Your task to perform on an android device: Show the shopping cart on costco. Add "jbl flip 4" to the cart on costco Image 0: 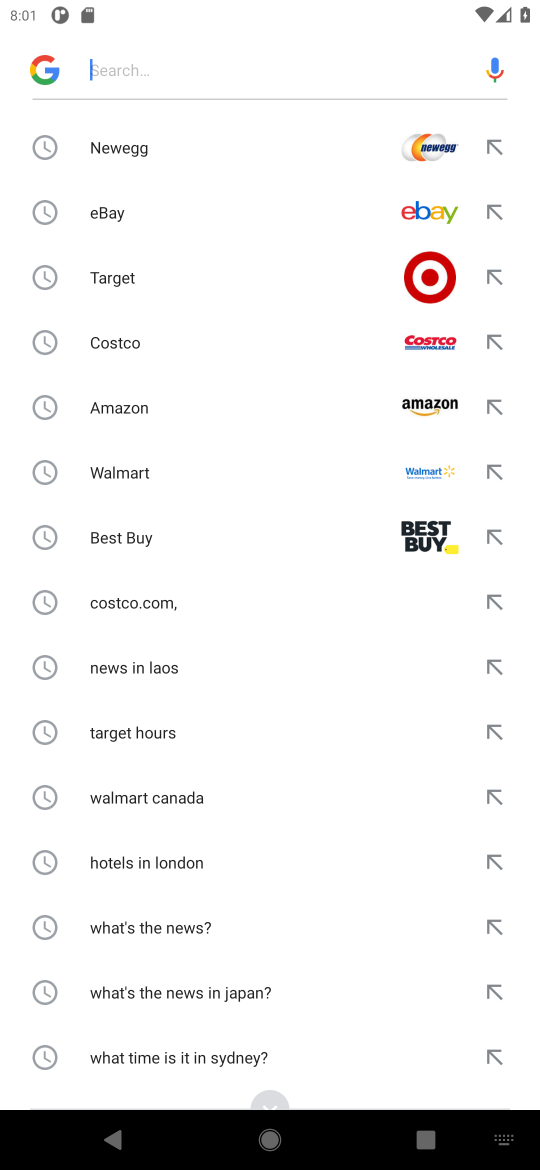
Step 0: type "costco.com"
Your task to perform on an android device: Show the shopping cart on costco. Add "jbl flip 4" to the cart on costco Image 1: 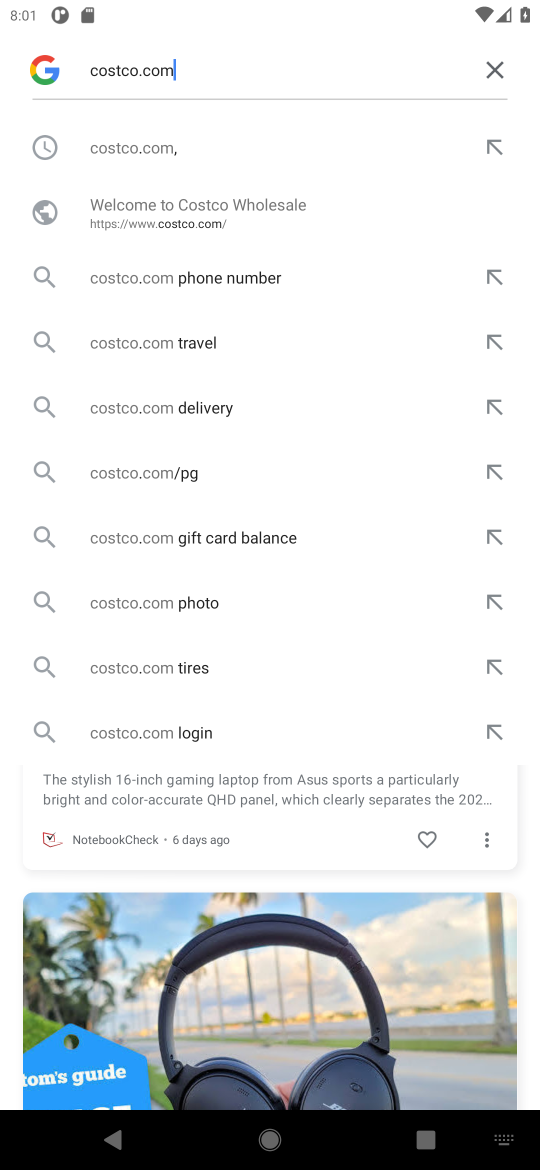
Step 1: click (141, 221)
Your task to perform on an android device: Show the shopping cart on costco. Add "jbl flip 4" to the cart on costco Image 2: 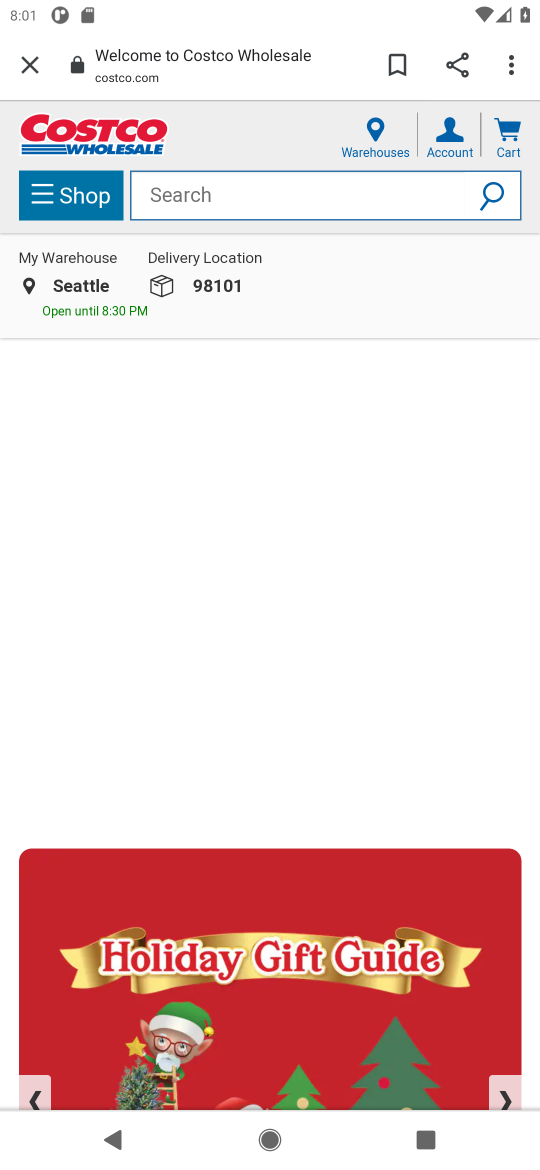
Step 2: click (506, 134)
Your task to perform on an android device: Show the shopping cart on costco. Add "jbl flip 4" to the cart on costco Image 3: 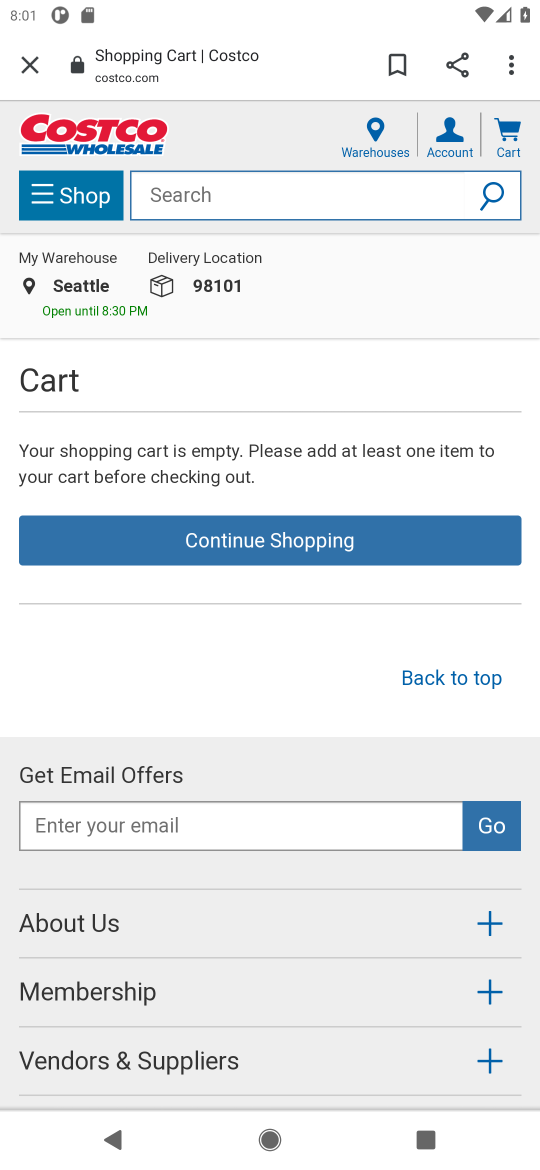
Step 3: click (221, 186)
Your task to perform on an android device: Show the shopping cart on costco. Add "jbl flip 4" to the cart on costco Image 4: 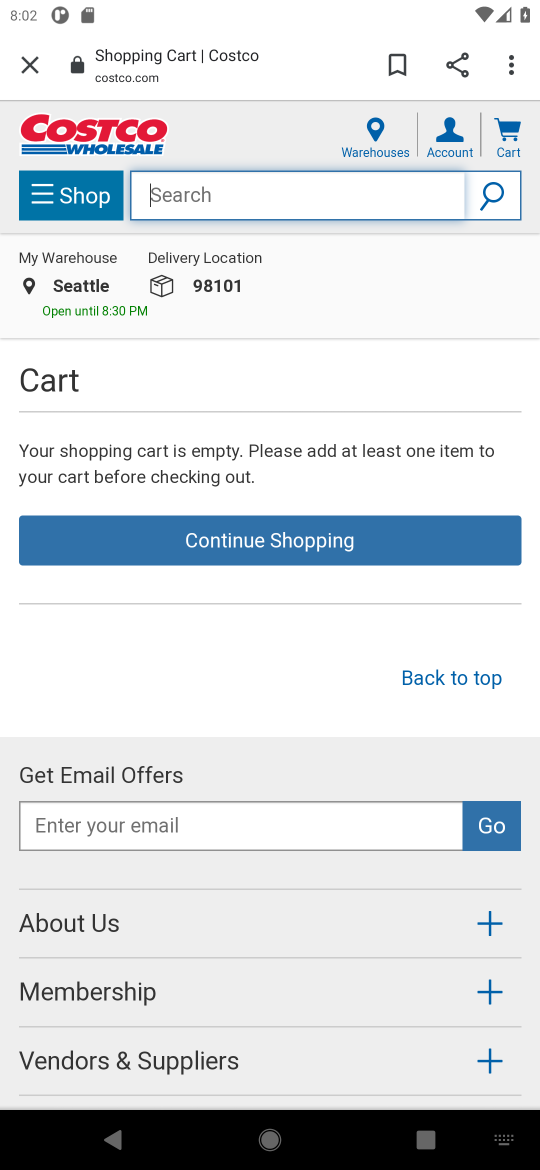
Step 4: type "jbl flip 4"
Your task to perform on an android device: Show the shopping cart on costco. Add "jbl flip 4" to the cart on costco Image 5: 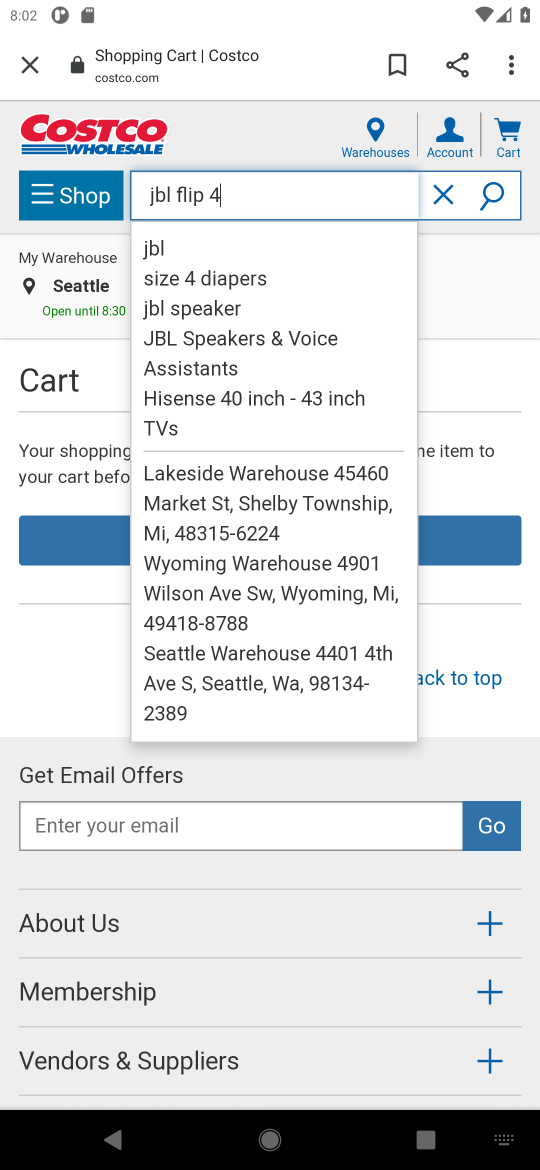
Step 5: click (494, 192)
Your task to perform on an android device: Show the shopping cart on costco. Add "jbl flip 4" to the cart on costco Image 6: 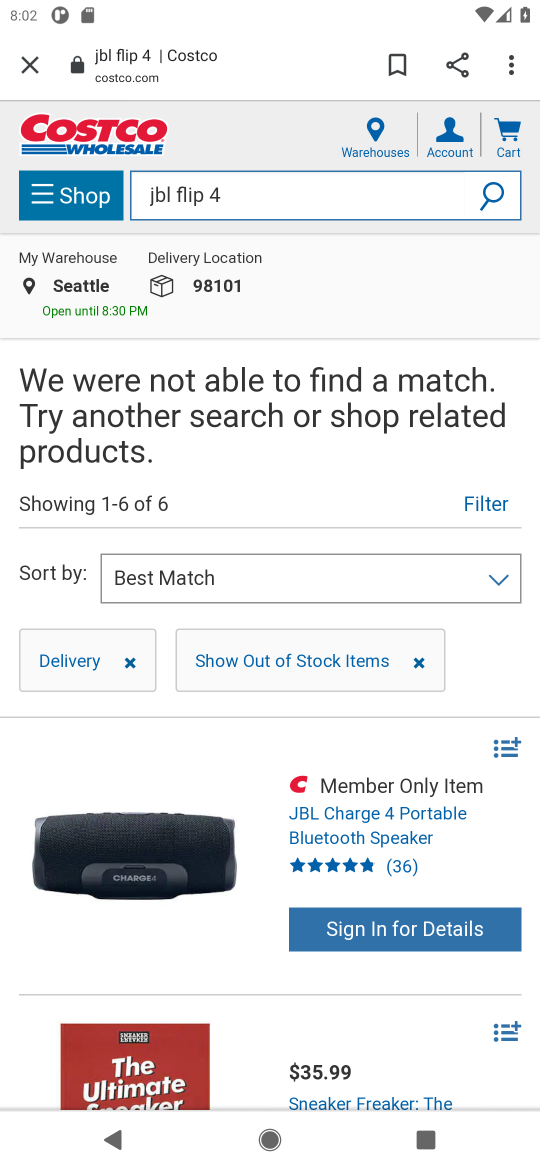
Step 6: task complete